Your task to perform on an android device: What is the news today? Image 0: 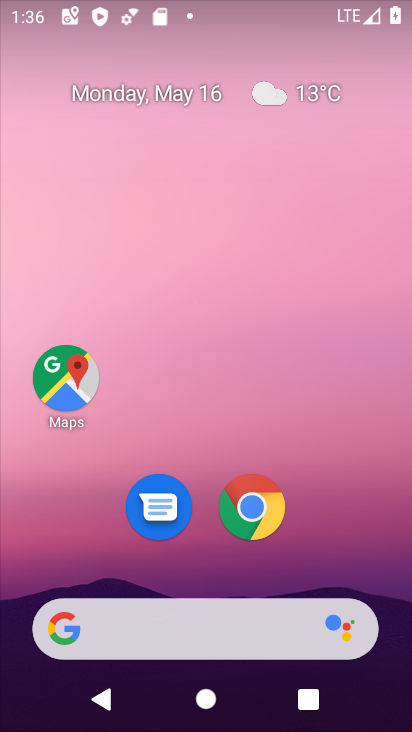
Step 0: drag from (347, 503) to (205, 3)
Your task to perform on an android device: What is the news today? Image 1: 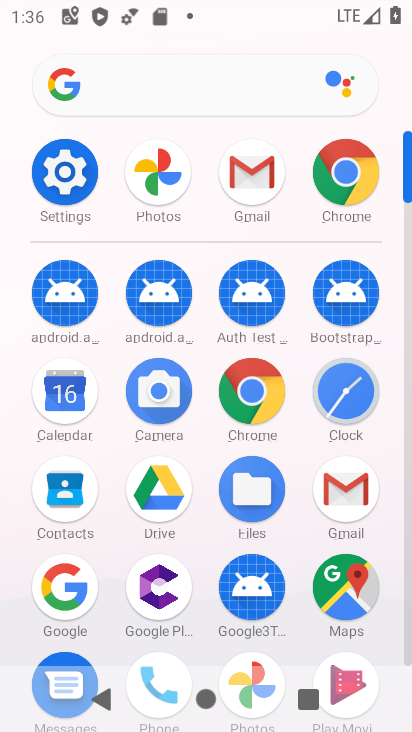
Step 1: click (62, 586)
Your task to perform on an android device: What is the news today? Image 2: 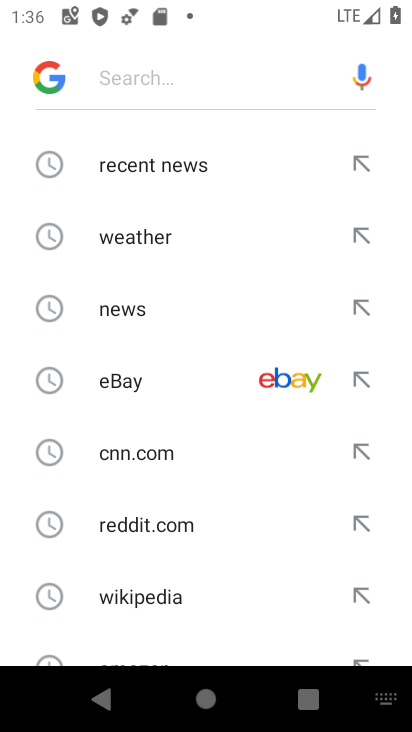
Step 2: click (141, 313)
Your task to perform on an android device: What is the news today? Image 3: 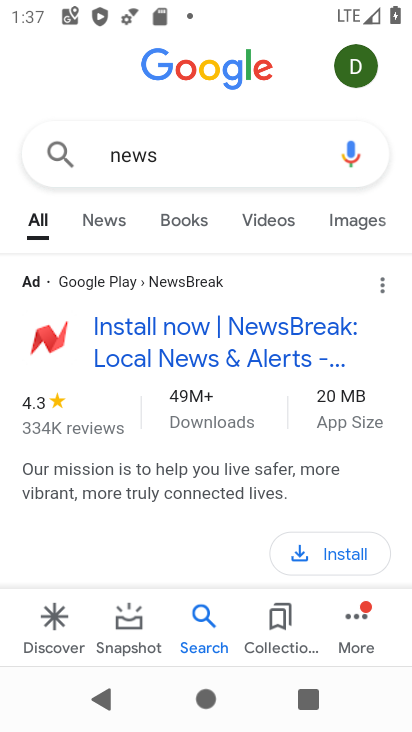
Step 3: click (111, 219)
Your task to perform on an android device: What is the news today? Image 4: 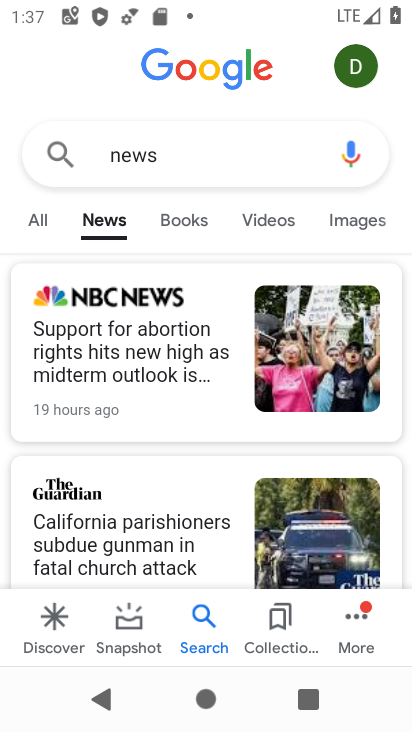
Step 4: task complete